Your task to perform on an android device: move a message to another label in the gmail app Image 0: 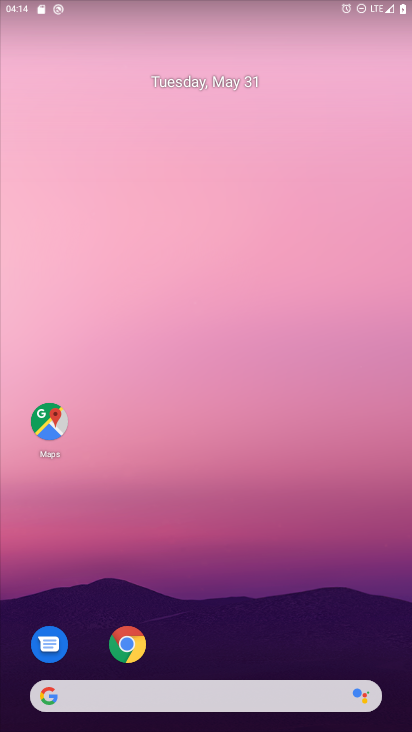
Step 0: drag from (306, 609) to (296, 125)
Your task to perform on an android device: move a message to another label in the gmail app Image 1: 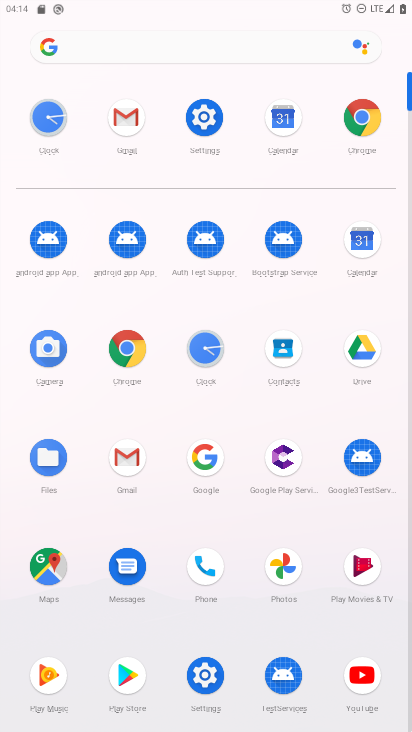
Step 1: click (120, 122)
Your task to perform on an android device: move a message to another label in the gmail app Image 2: 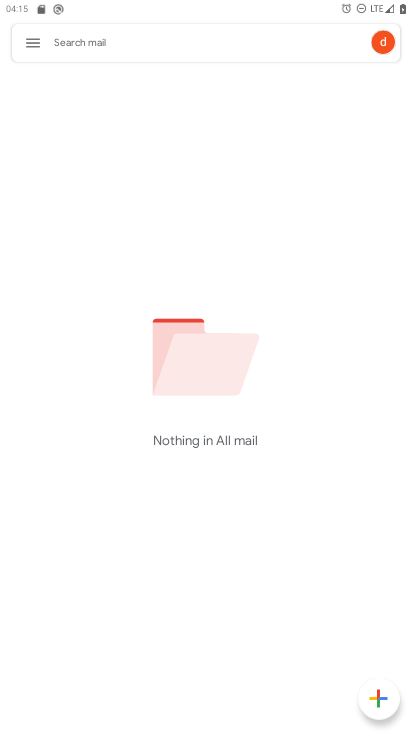
Step 2: task complete